Your task to perform on an android device: Go to display settings Image 0: 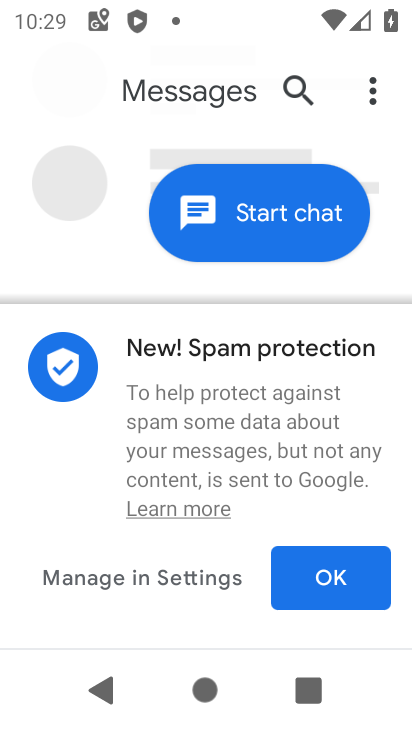
Step 0: press home button
Your task to perform on an android device: Go to display settings Image 1: 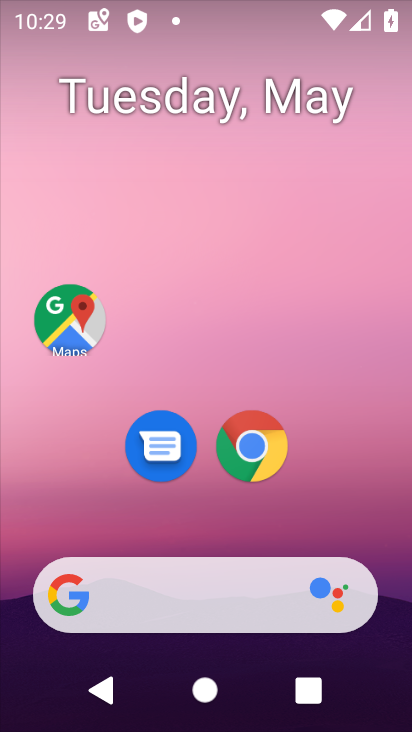
Step 1: drag from (152, 491) to (158, 54)
Your task to perform on an android device: Go to display settings Image 2: 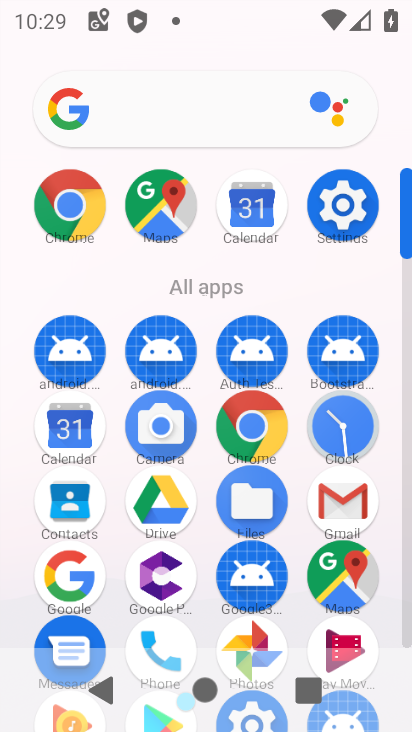
Step 2: click (358, 208)
Your task to perform on an android device: Go to display settings Image 3: 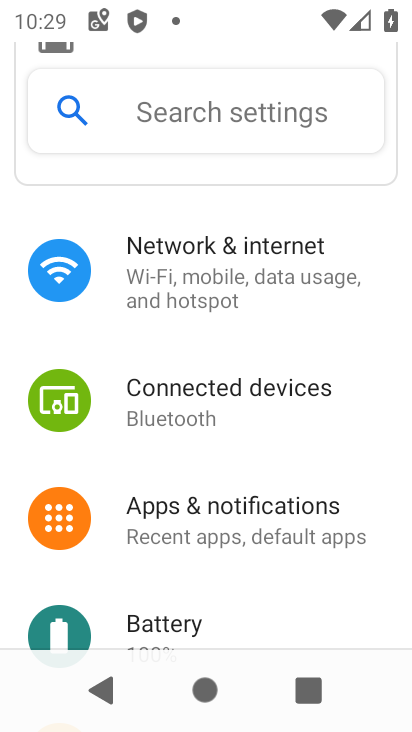
Step 3: drag from (239, 599) to (283, 267)
Your task to perform on an android device: Go to display settings Image 4: 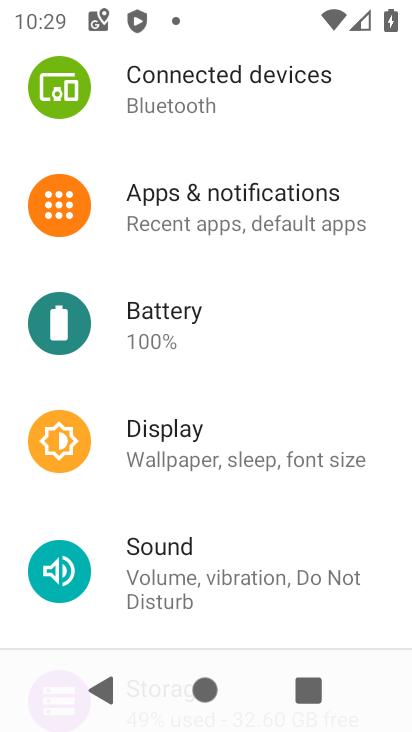
Step 4: click (195, 436)
Your task to perform on an android device: Go to display settings Image 5: 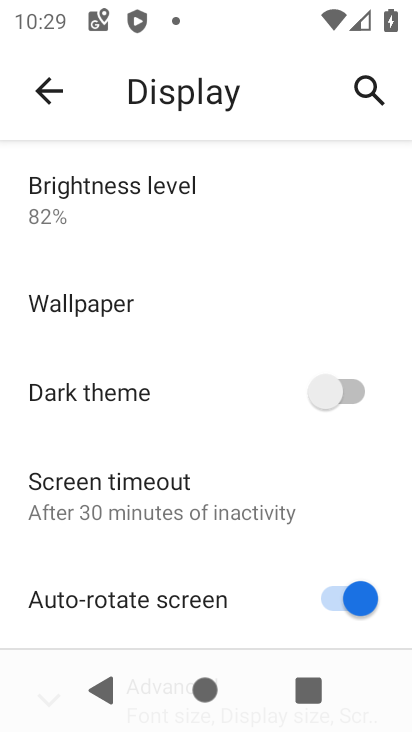
Step 5: task complete